Your task to perform on an android device: Open the phone app and click the voicemail tab. Image 0: 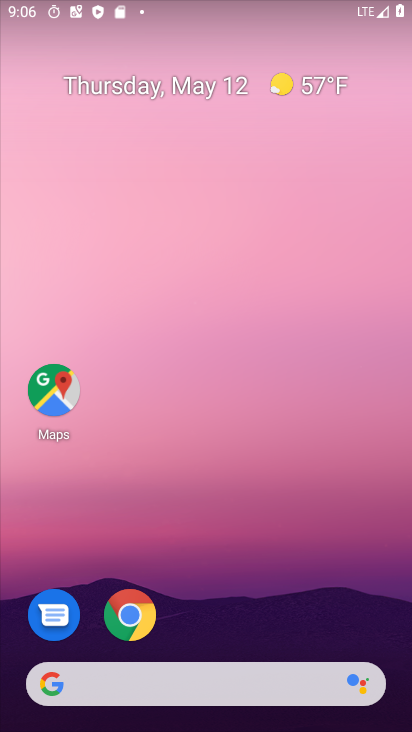
Step 0: drag from (227, 534) to (227, 46)
Your task to perform on an android device: Open the phone app and click the voicemail tab. Image 1: 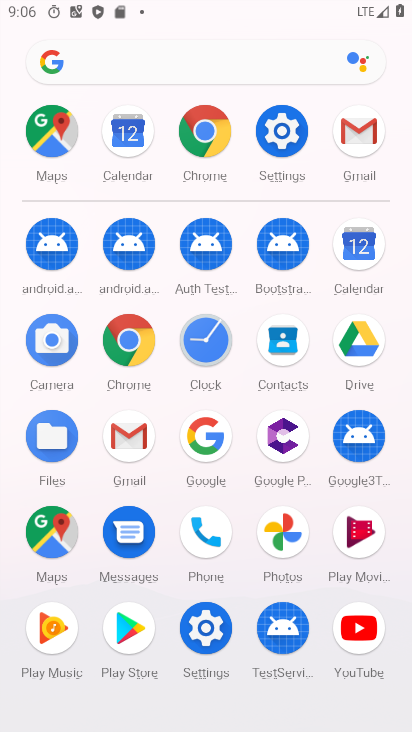
Step 1: drag from (6, 522) to (10, 167)
Your task to perform on an android device: Open the phone app and click the voicemail tab. Image 2: 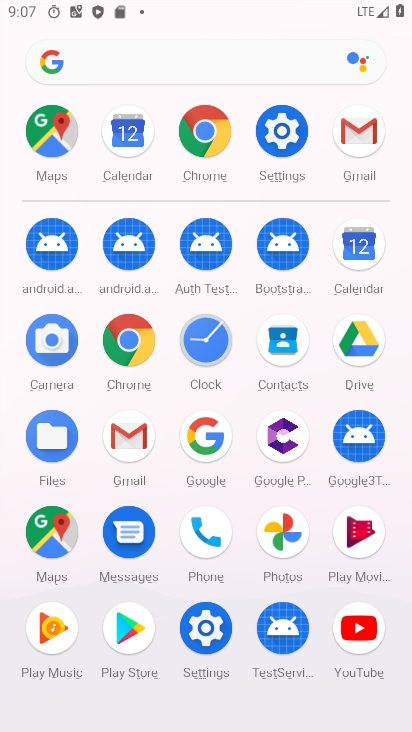
Step 2: drag from (19, 515) to (4, 234)
Your task to perform on an android device: Open the phone app and click the voicemail tab. Image 3: 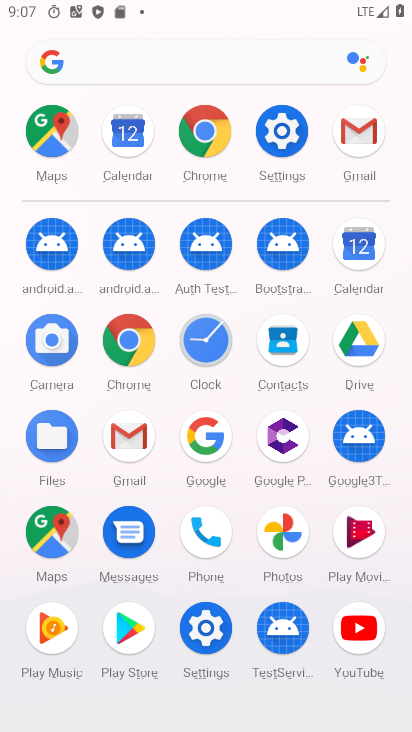
Step 3: click (209, 531)
Your task to perform on an android device: Open the phone app and click the voicemail tab. Image 4: 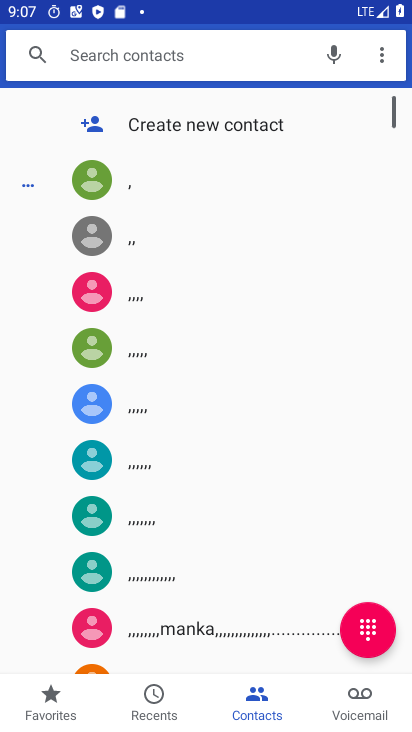
Step 4: click (332, 695)
Your task to perform on an android device: Open the phone app and click the voicemail tab. Image 5: 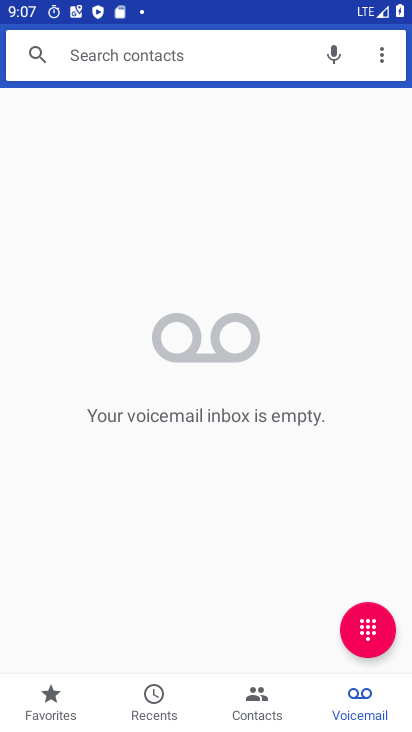
Step 5: task complete